Your task to perform on an android device: turn on location history Image 0: 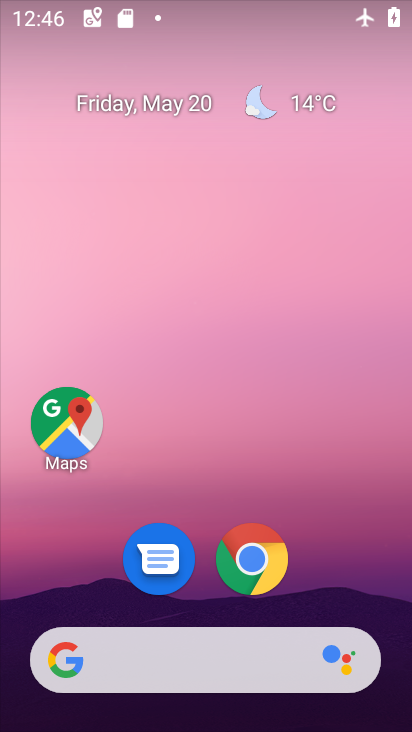
Step 0: drag from (335, 557) to (295, 197)
Your task to perform on an android device: turn on location history Image 1: 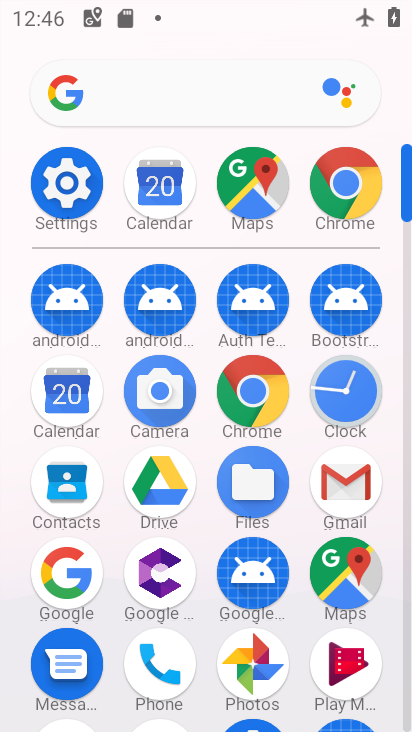
Step 1: click (263, 177)
Your task to perform on an android device: turn on location history Image 2: 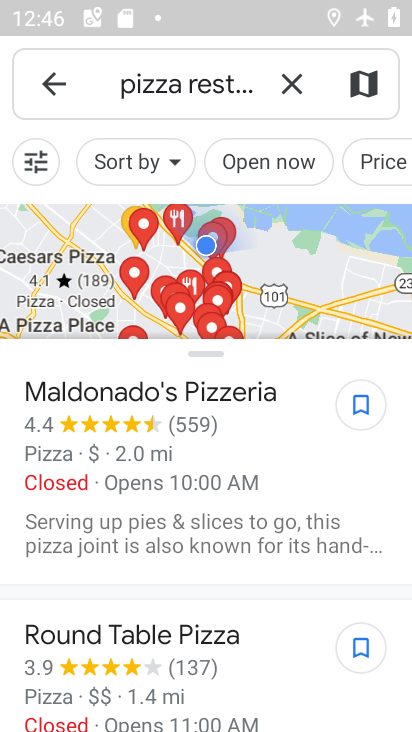
Step 2: click (263, 177)
Your task to perform on an android device: turn on location history Image 3: 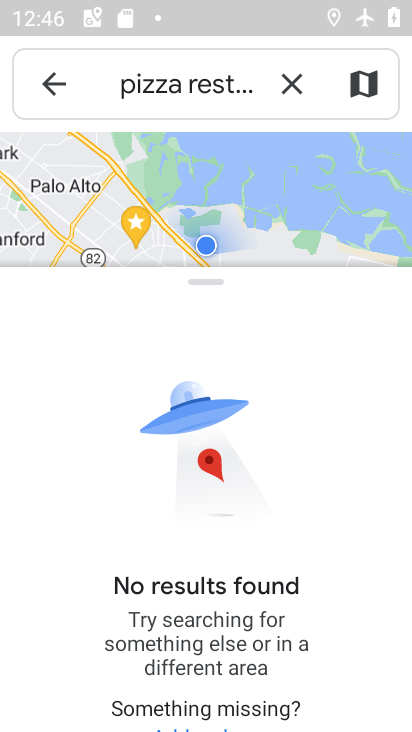
Step 3: click (292, 71)
Your task to perform on an android device: turn on location history Image 4: 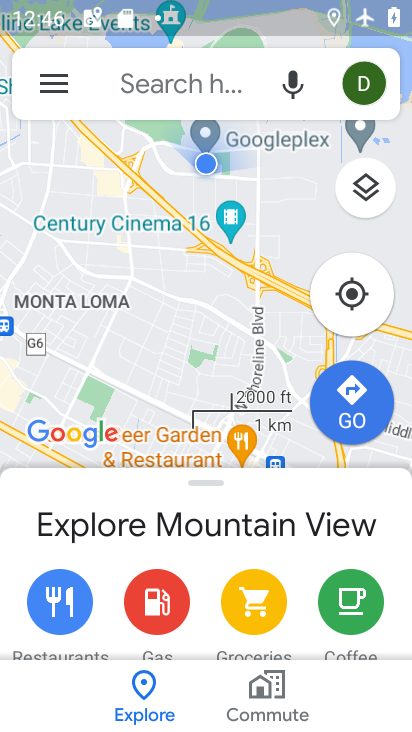
Step 4: click (53, 80)
Your task to perform on an android device: turn on location history Image 5: 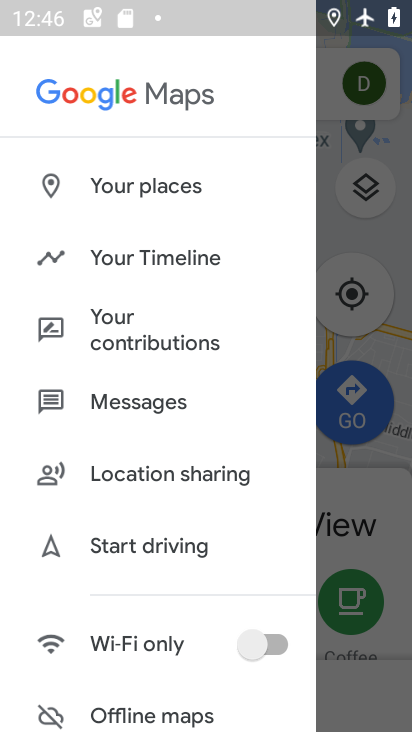
Step 5: click (102, 265)
Your task to perform on an android device: turn on location history Image 6: 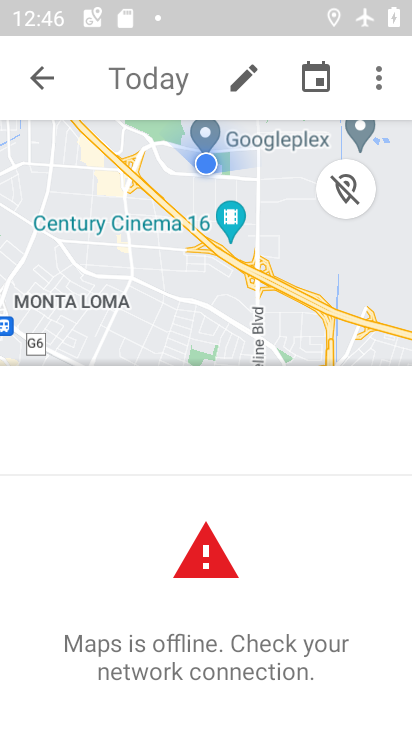
Step 6: click (377, 102)
Your task to perform on an android device: turn on location history Image 7: 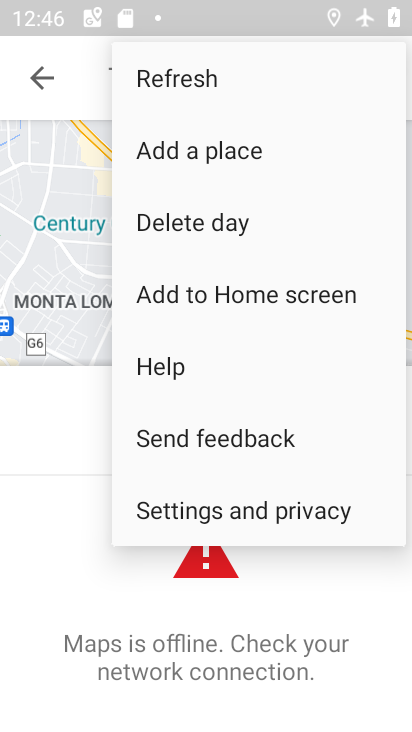
Step 7: click (312, 516)
Your task to perform on an android device: turn on location history Image 8: 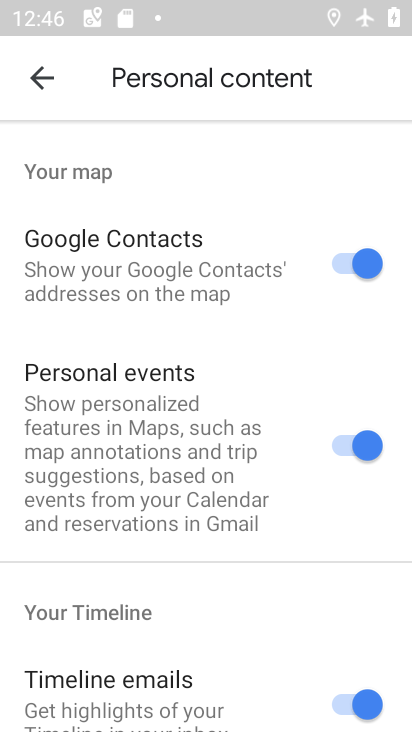
Step 8: drag from (302, 647) to (204, 206)
Your task to perform on an android device: turn on location history Image 9: 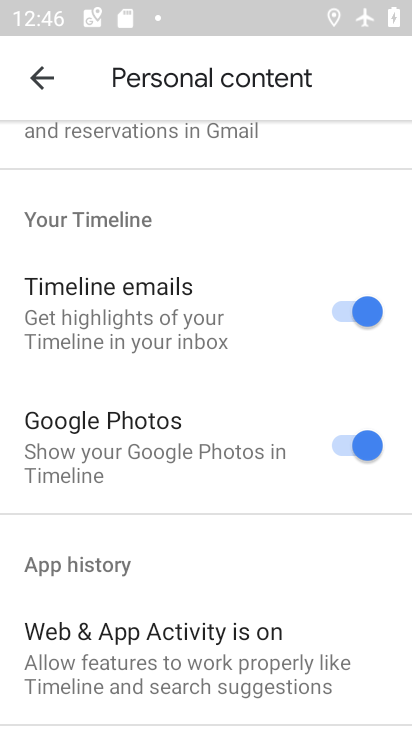
Step 9: drag from (283, 577) to (241, 120)
Your task to perform on an android device: turn on location history Image 10: 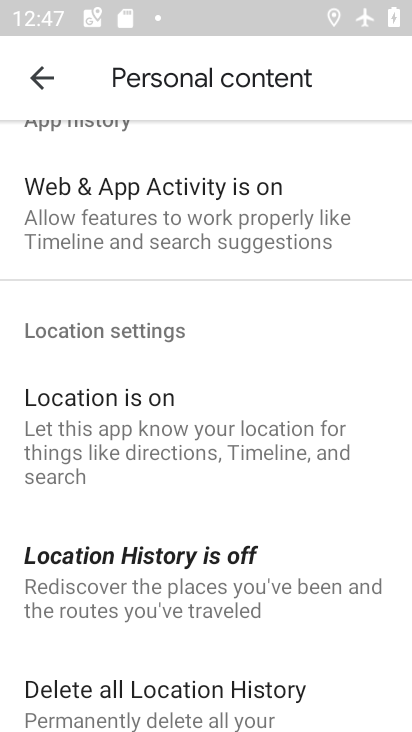
Step 10: click (292, 594)
Your task to perform on an android device: turn on location history Image 11: 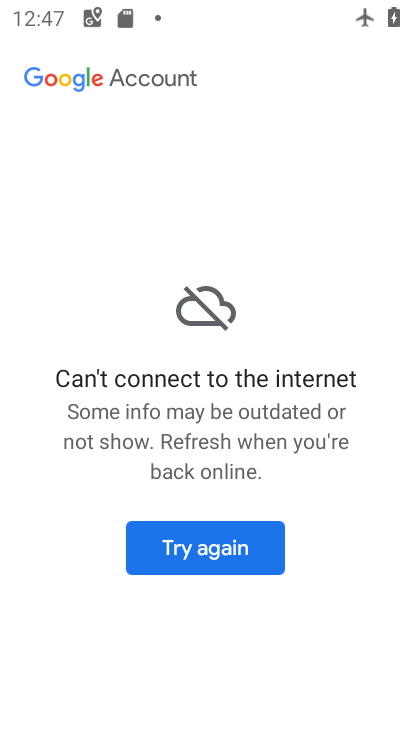
Step 11: task complete